Your task to perform on an android device: change notifications settings Image 0: 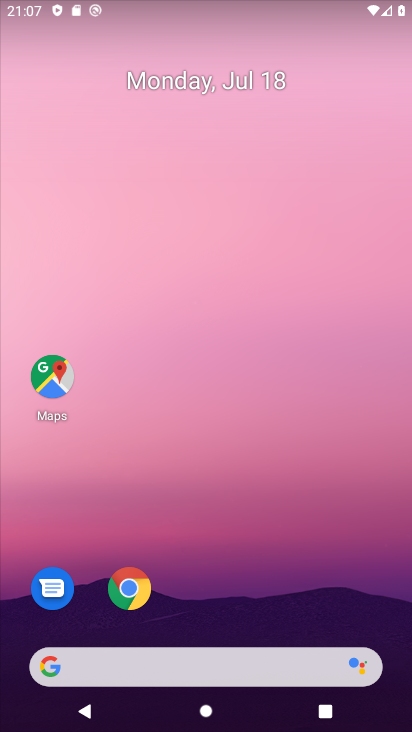
Step 0: press home button
Your task to perform on an android device: change notifications settings Image 1: 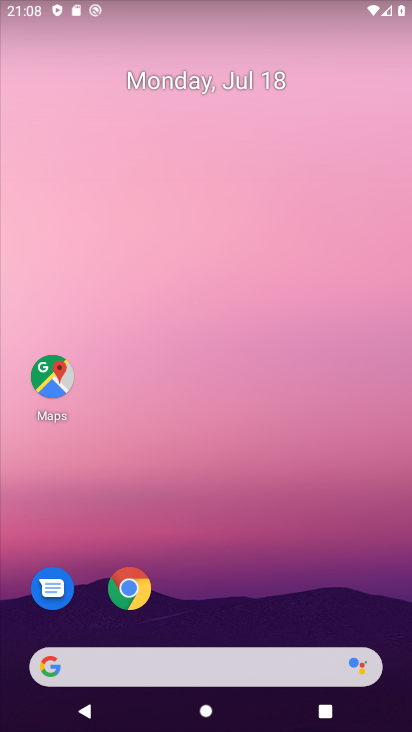
Step 1: drag from (249, 591) to (242, 107)
Your task to perform on an android device: change notifications settings Image 2: 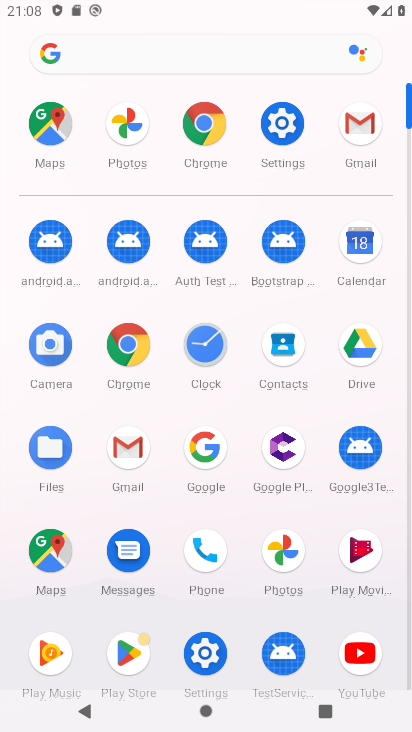
Step 2: click (218, 646)
Your task to perform on an android device: change notifications settings Image 3: 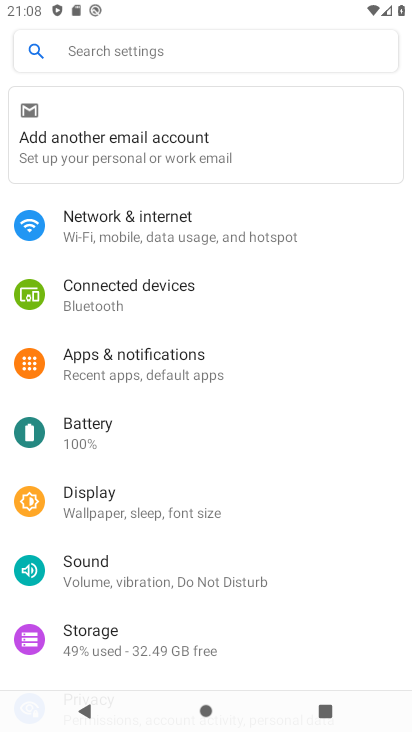
Step 3: click (61, 369)
Your task to perform on an android device: change notifications settings Image 4: 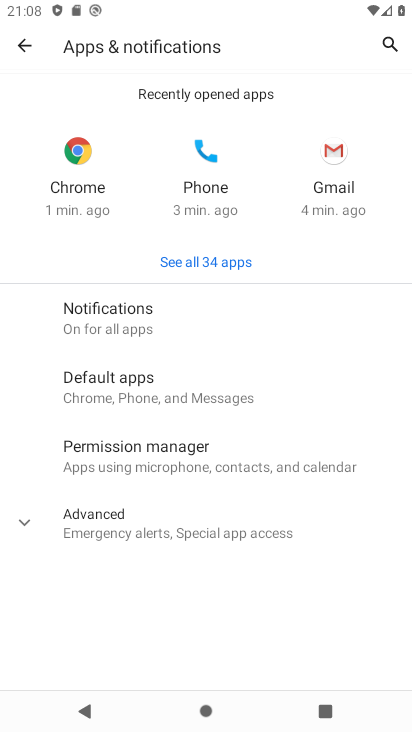
Step 4: click (67, 327)
Your task to perform on an android device: change notifications settings Image 5: 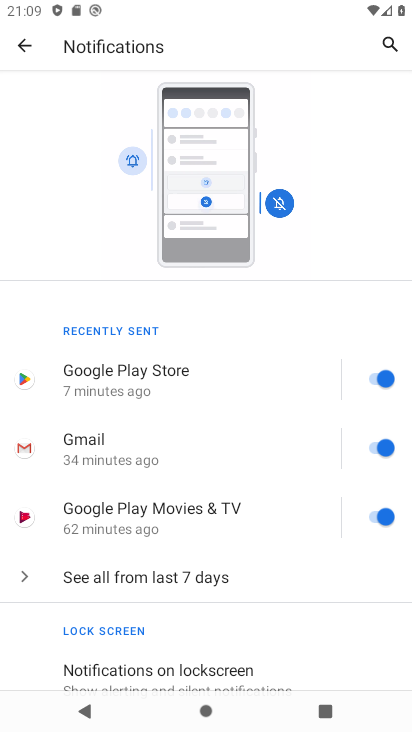
Step 5: task complete